Your task to perform on an android device: stop showing notifications on the lock screen Image 0: 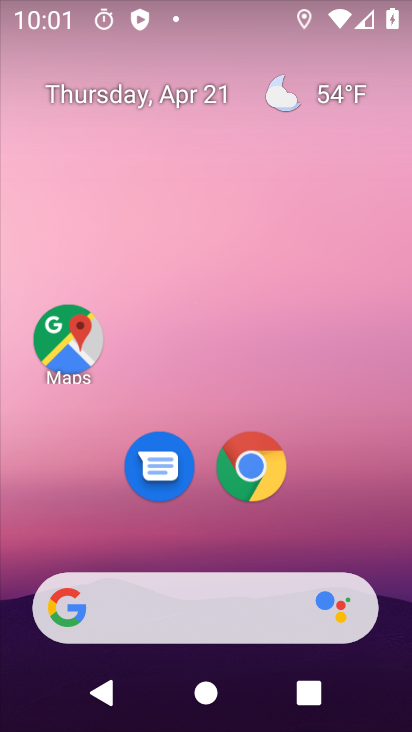
Step 0: press home button
Your task to perform on an android device: stop showing notifications on the lock screen Image 1: 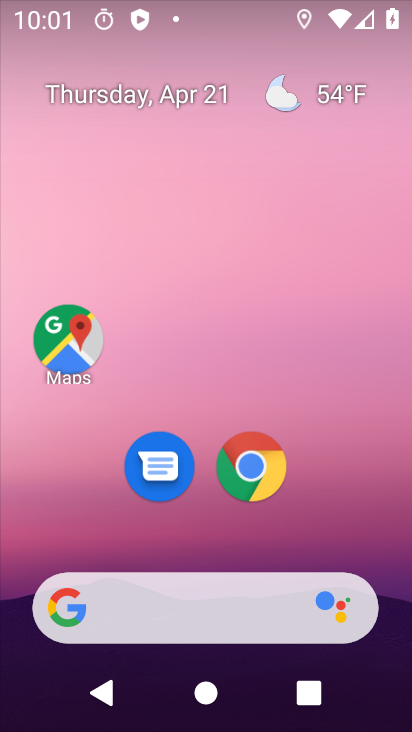
Step 1: drag from (369, 533) to (379, 142)
Your task to perform on an android device: stop showing notifications on the lock screen Image 2: 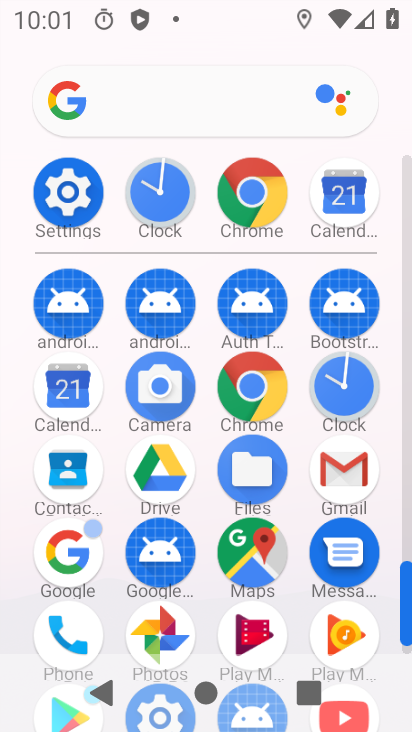
Step 2: drag from (301, 602) to (304, 317)
Your task to perform on an android device: stop showing notifications on the lock screen Image 3: 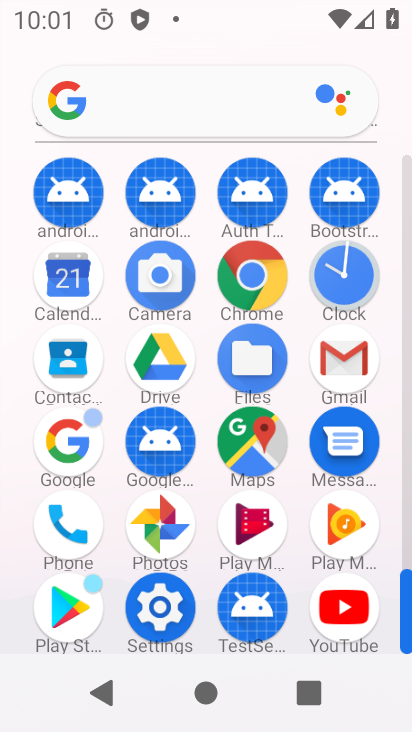
Step 3: click (173, 604)
Your task to perform on an android device: stop showing notifications on the lock screen Image 4: 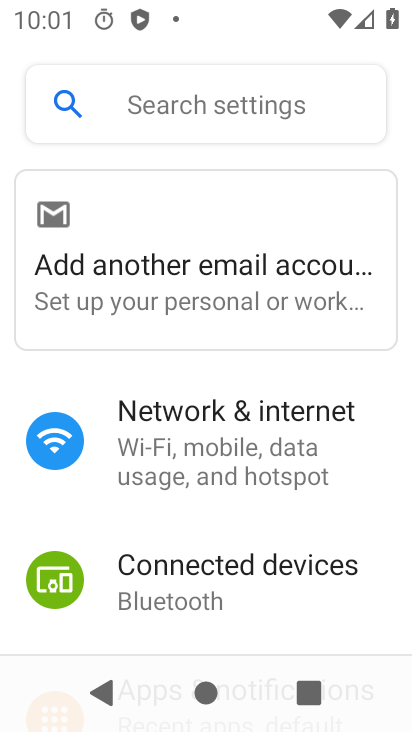
Step 4: drag from (303, 515) to (345, 226)
Your task to perform on an android device: stop showing notifications on the lock screen Image 5: 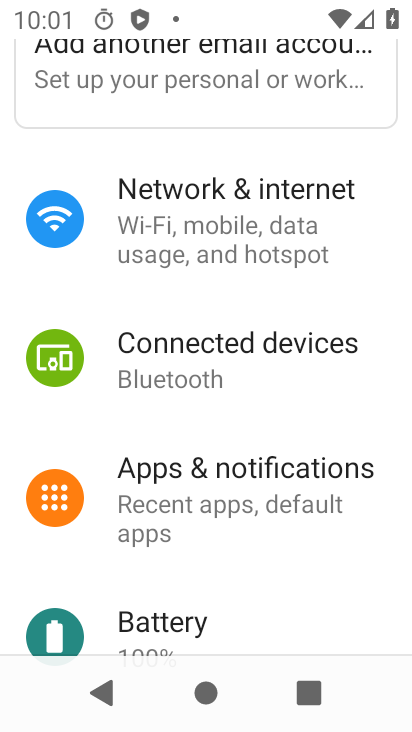
Step 5: drag from (278, 585) to (331, 316)
Your task to perform on an android device: stop showing notifications on the lock screen Image 6: 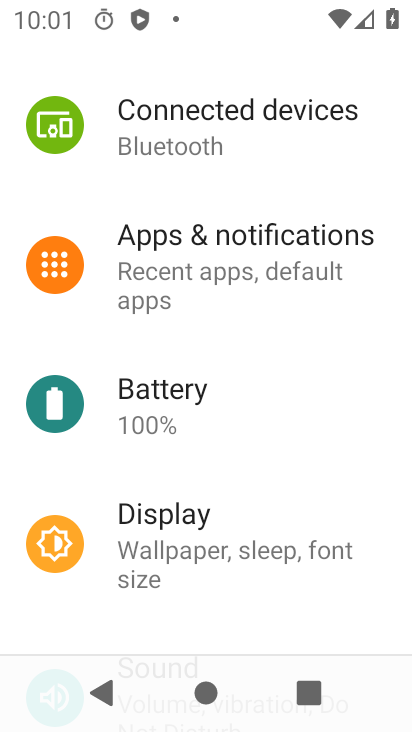
Step 6: click (232, 255)
Your task to perform on an android device: stop showing notifications on the lock screen Image 7: 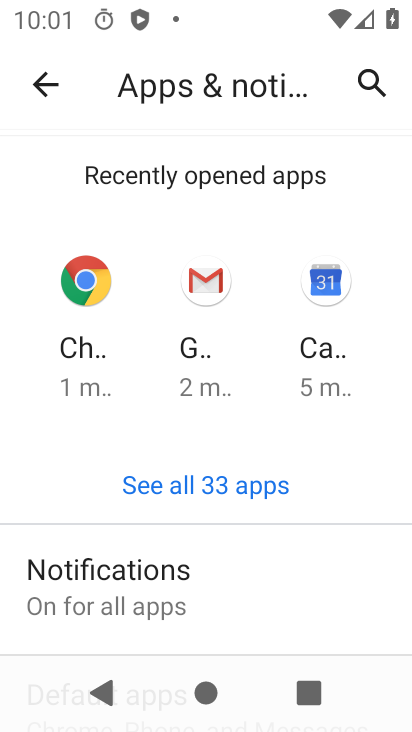
Step 7: drag from (324, 568) to (396, 269)
Your task to perform on an android device: stop showing notifications on the lock screen Image 8: 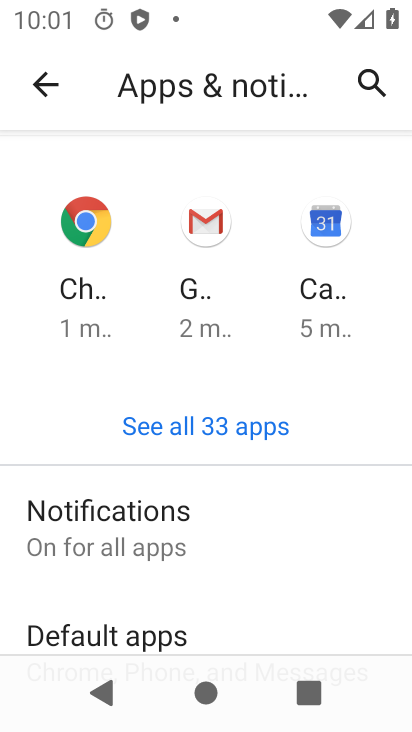
Step 8: click (188, 502)
Your task to perform on an android device: stop showing notifications on the lock screen Image 9: 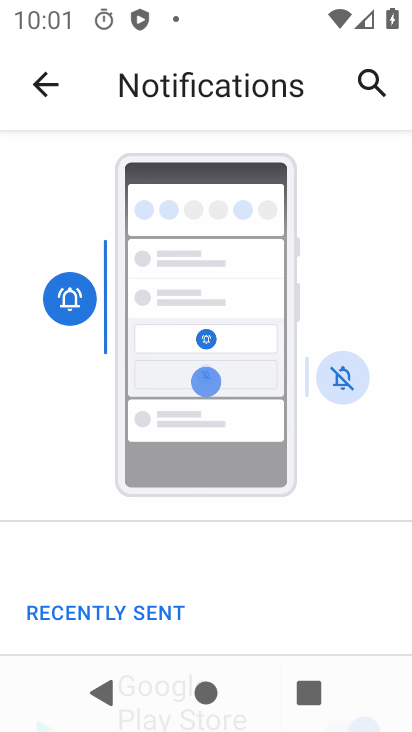
Step 9: drag from (276, 567) to (375, 200)
Your task to perform on an android device: stop showing notifications on the lock screen Image 10: 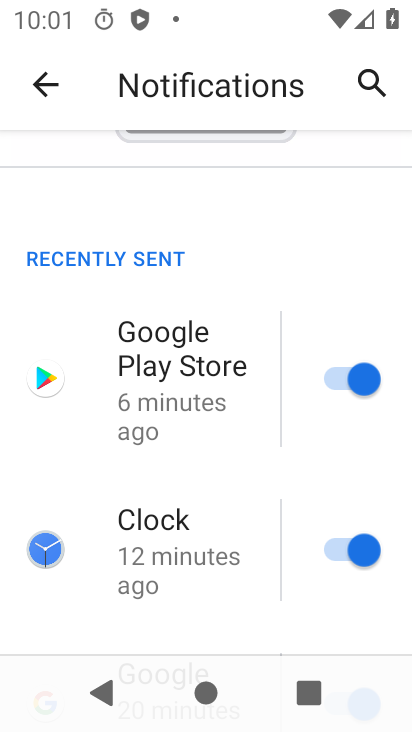
Step 10: drag from (229, 590) to (299, 262)
Your task to perform on an android device: stop showing notifications on the lock screen Image 11: 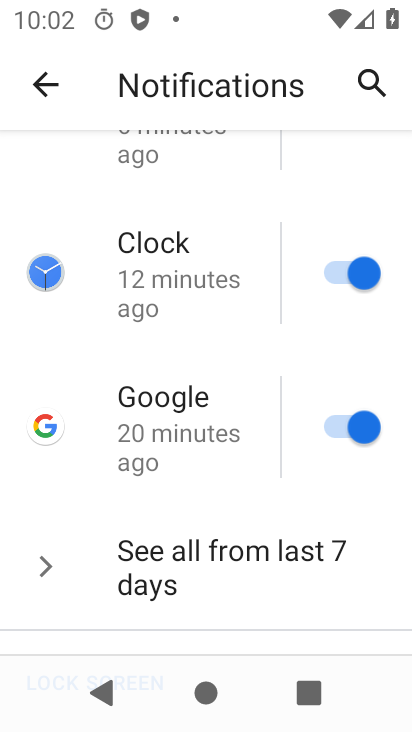
Step 11: drag from (276, 467) to (276, 193)
Your task to perform on an android device: stop showing notifications on the lock screen Image 12: 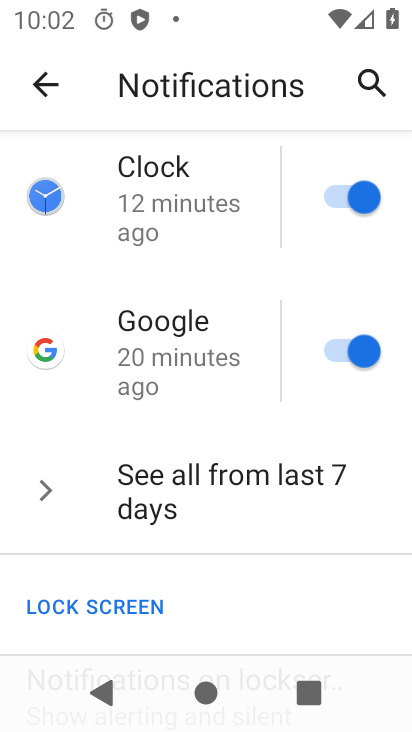
Step 12: drag from (228, 589) to (274, 252)
Your task to perform on an android device: stop showing notifications on the lock screen Image 13: 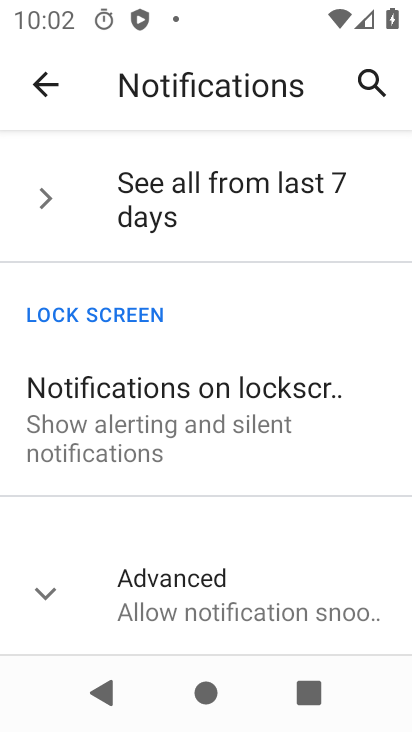
Step 13: click (221, 428)
Your task to perform on an android device: stop showing notifications on the lock screen Image 14: 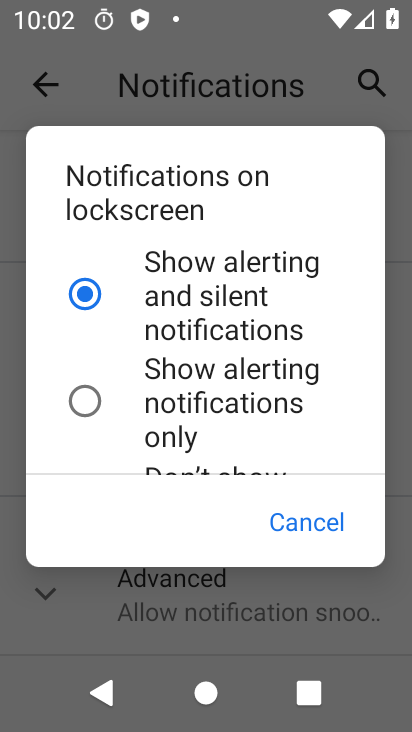
Step 14: drag from (242, 394) to (275, 256)
Your task to perform on an android device: stop showing notifications on the lock screen Image 15: 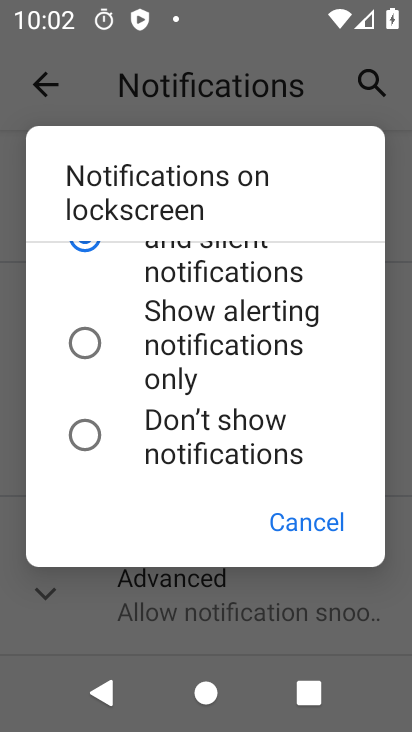
Step 15: click (88, 431)
Your task to perform on an android device: stop showing notifications on the lock screen Image 16: 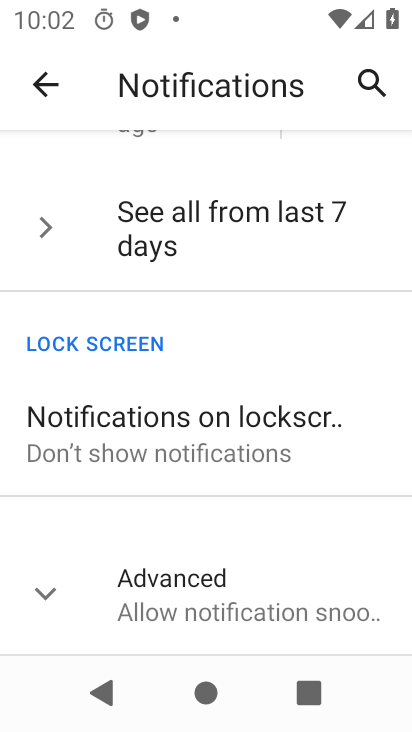
Step 16: task complete